Your task to perform on an android device: toggle priority inbox in the gmail app Image 0: 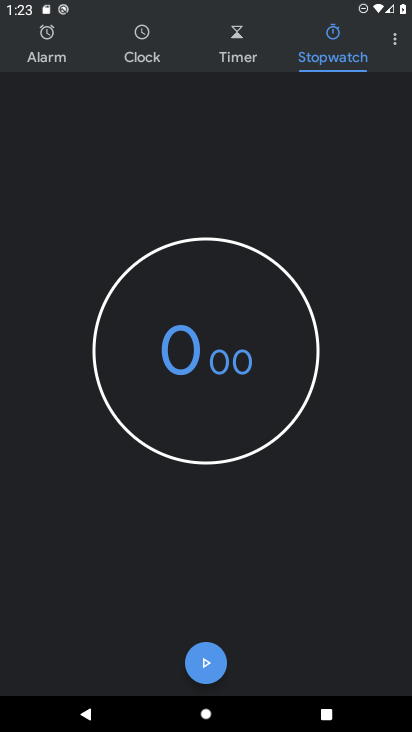
Step 0: click (403, 40)
Your task to perform on an android device: toggle priority inbox in the gmail app Image 1: 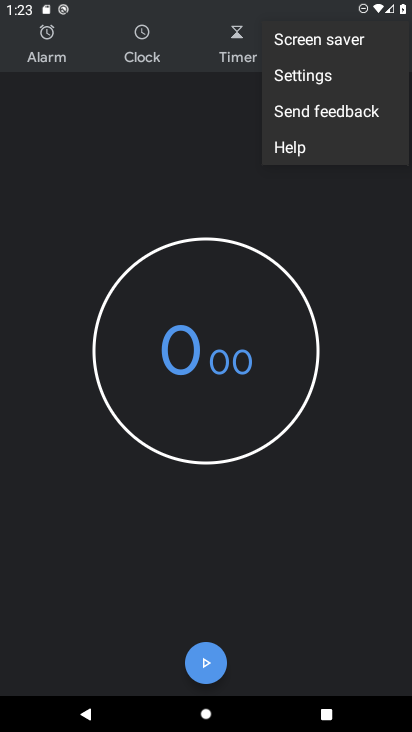
Step 1: press home button
Your task to perform on an android device: toggle priority inbox in the gmail app Image 2: 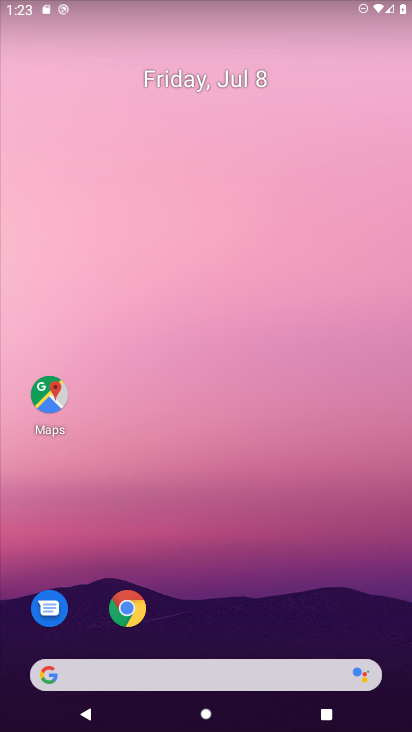
Step 2: drag from (267, 638) to (250, 190)
Your task to perform on an android device: toggle priority inbox in the gmail app Image 3: 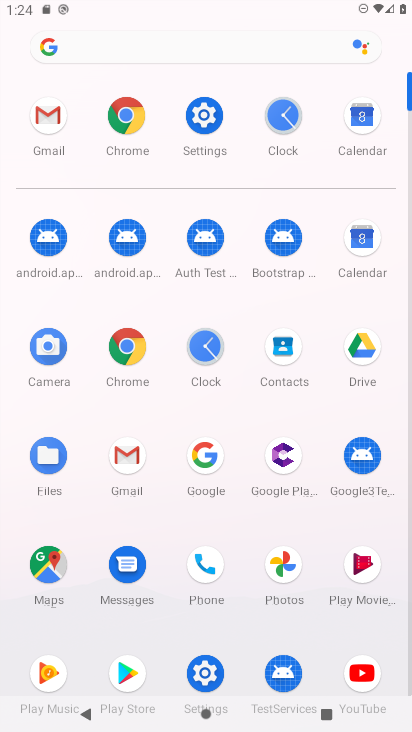
Step 3: click (35, 121)
Your task to perform on an android device: toggle priority inbox in the gmail app Image 4: 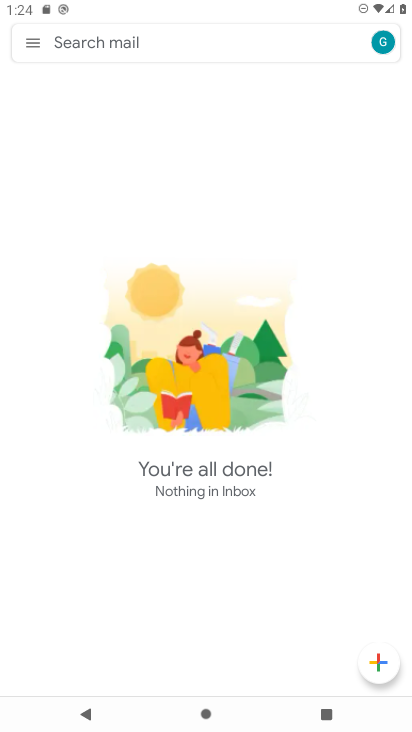
Step 4: click (24, 57)
Your task to perform on an android device: toggle priority inbox in the gmail app Image 5: 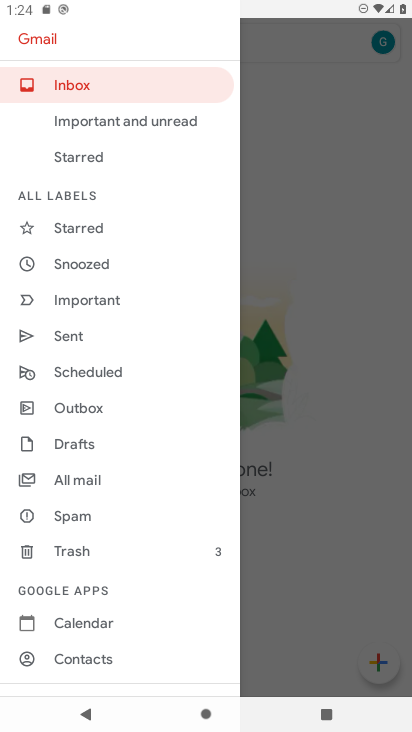
Step 5: drag from (34, 629) to (79, 367)
Your task to perform on an android device: toggle priority inbox in the gmail app Image 6: 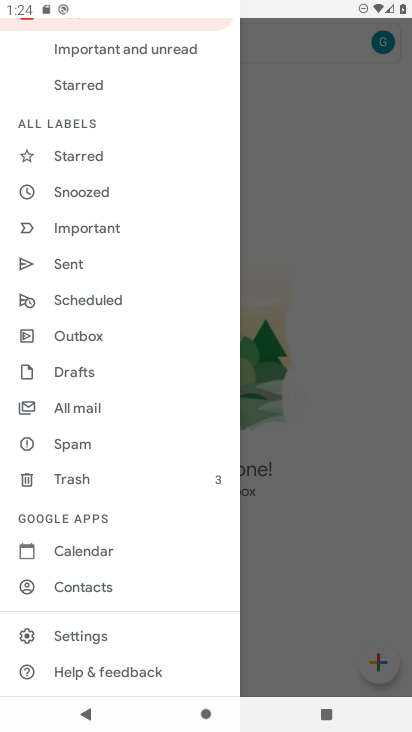
Step 6: click (58, 627)
Your task to perform on an android device: toggle priority inbox in the gmail app Image 7: 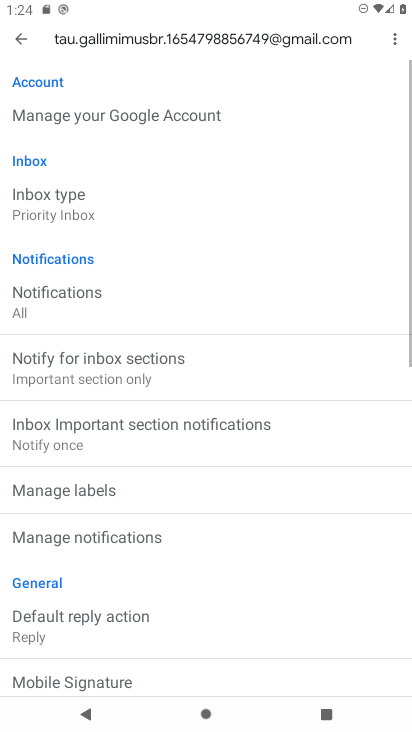
Step 7: click (102, 219)
Your task to perform on an android device: toggle priority inbox in the gmail app Image 8: 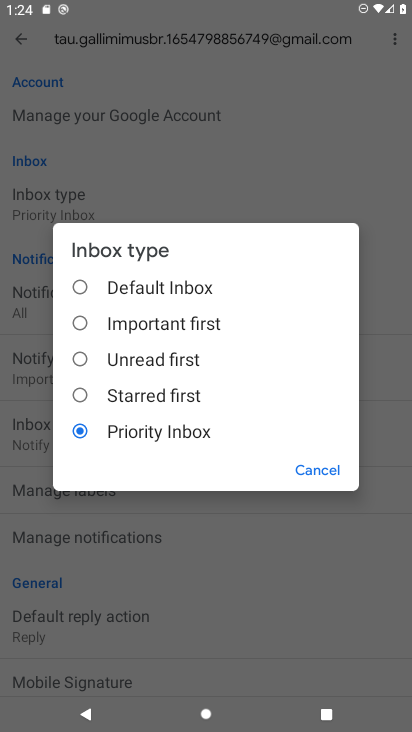
Step 8: click (132, 323)
Your task to perform on an android device: toggle priority inbox in the gmail app Image 9: 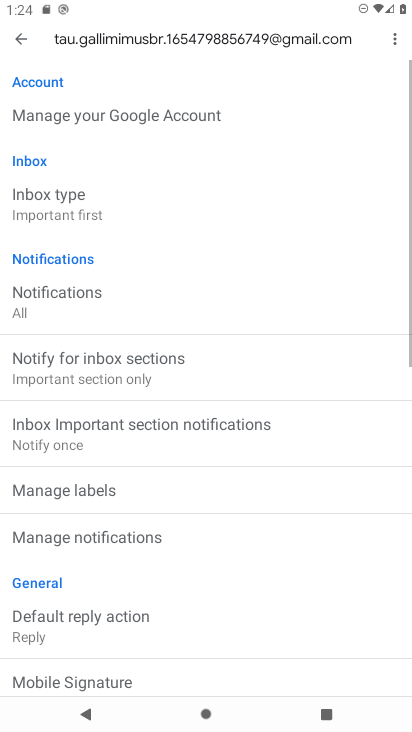
Step 9: task complete